Your task to perform on an android device: turn on wifi Image 0: 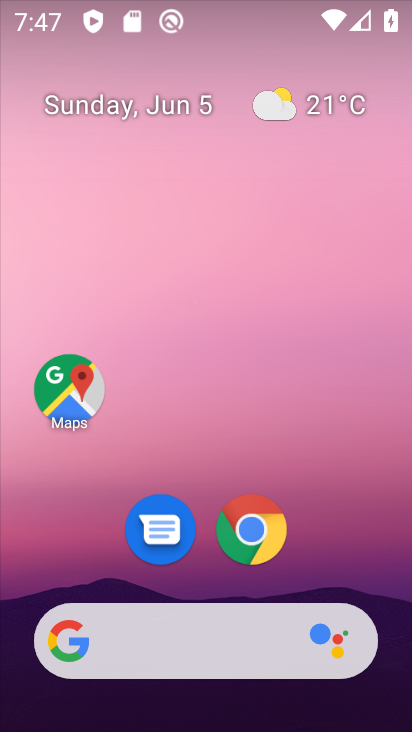
Step 0: drag from (210, 717) to (315, 13)
Your task to perform on an android device: turn on wifi Image 1: 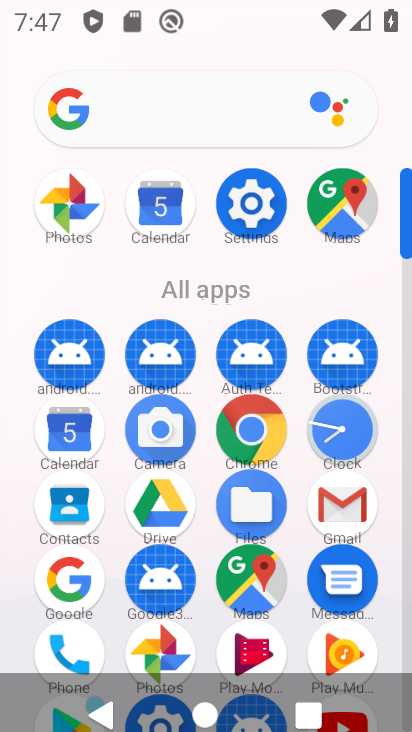
Step 1: click (226, 179)
Your task to perform on an android device: turn on wifi Image 2: 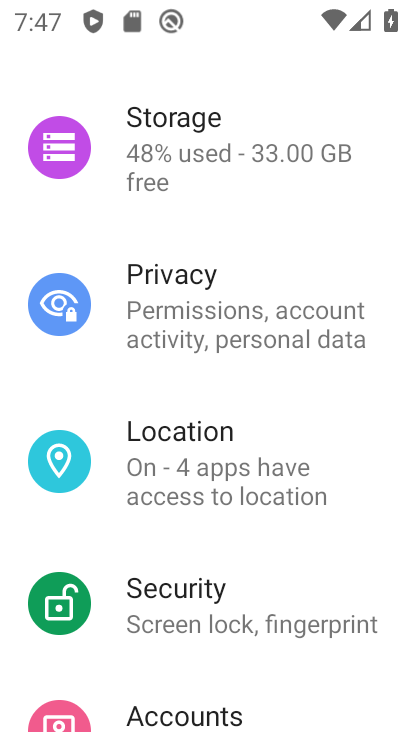
Step 2: drag from (281, 202) to (101, 704)
Your task to perform on an android device: turn on wifi Image 3: 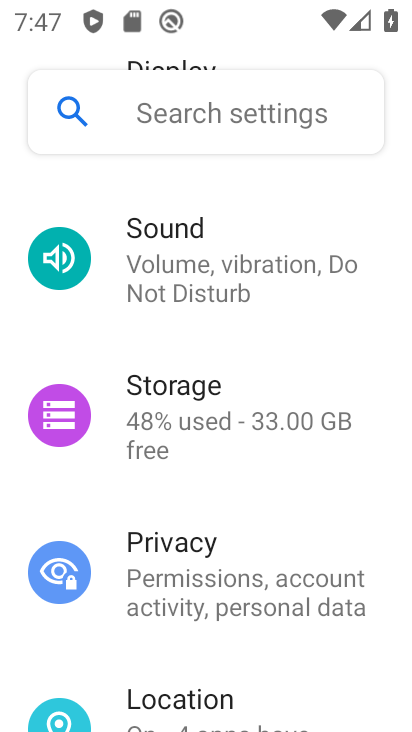
Step 3: drag from (354, 165) to (158, 721)
Your task to perform on an android device: turn on wifi Image 4: 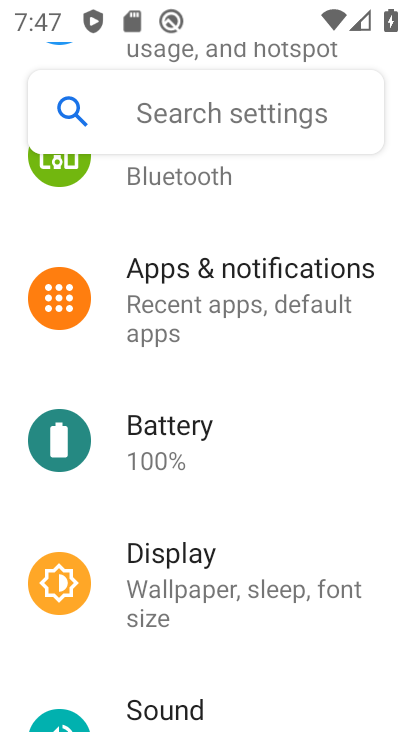
Step 4: drag from (228, 476) to (12, 614)
Your task to perform on an android device: turn on wifi Image 5: 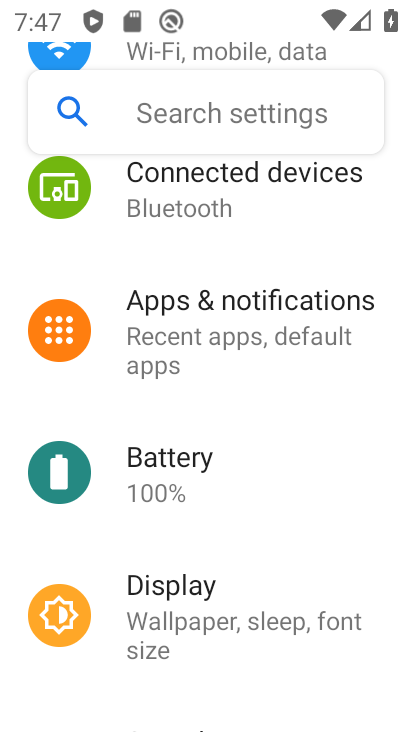
Step 5: drag from (304, 255) to (2, 679)
Your task to perform on an android device: turn on wifi Image 6: 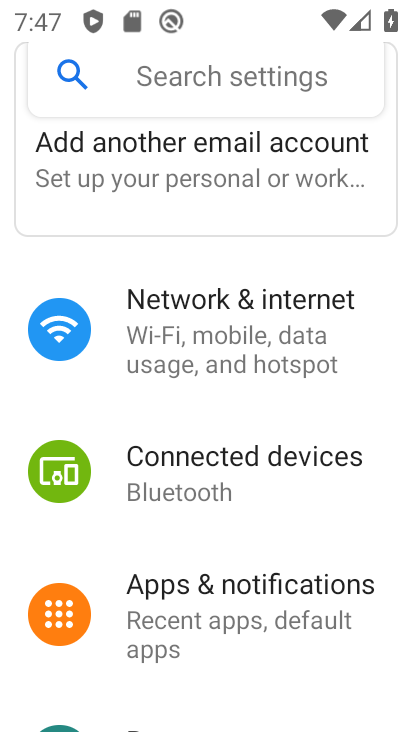
Step 6: click (285, 350)
Your task to perform on an android device: turn on wifi Image 7: 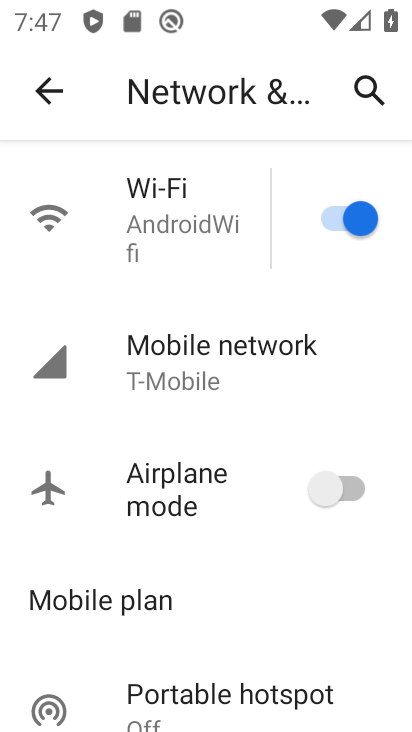
Step 7: task complete